Your task to perform on an android device: Is it going to rain this weekend? Image 0: 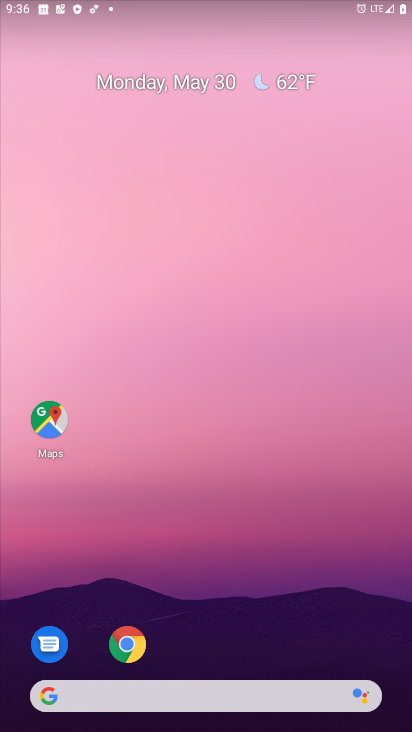
Step 0: click (293, 78)
Your task to perform on an android device: Is it going to rain this weekend? Image 1: 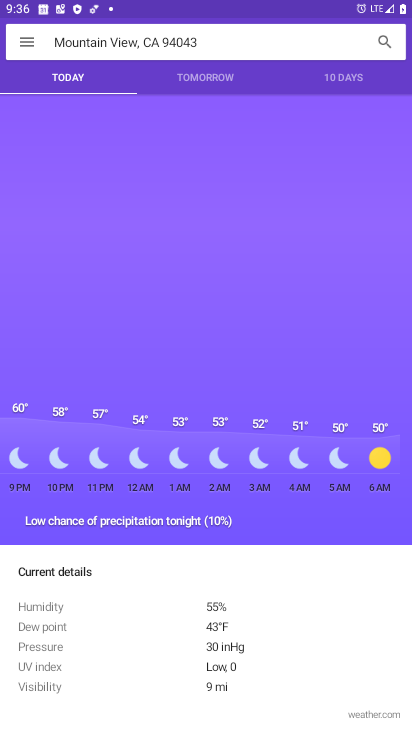
Step 1: click (343, 84)
Your task to perform on an android device: Is it going to rain this weekend? Image 2: 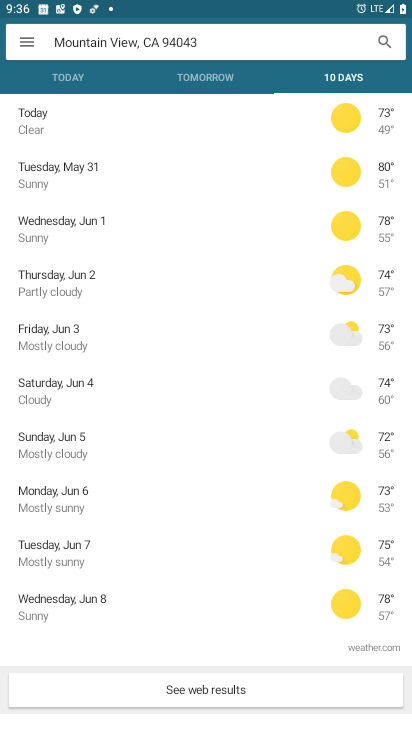
Step 2: task complete